Your task to perform on an android device: find which apps use the phone's location Image 0: 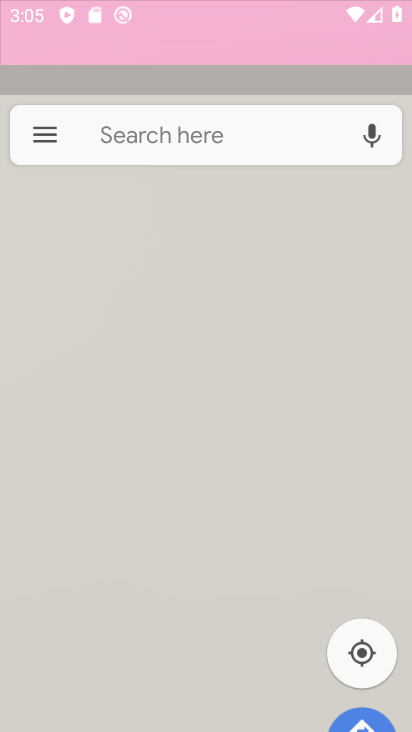
Step 0: click (257, 580)
Your task to perform on an android device: find which apps use the phone's location Image 1: 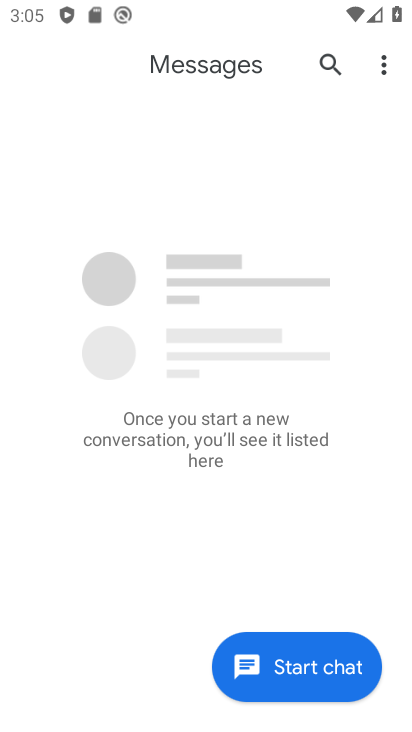
Step 1: press back button
Your task to perform on an android device: find which apps use the phone's location Image 2: 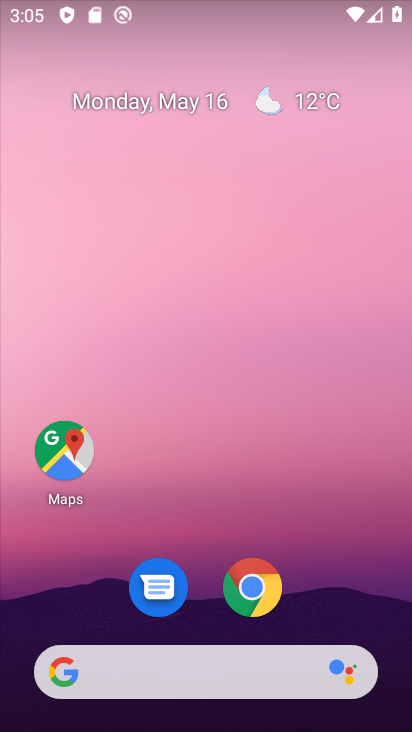
Step 2: click (257, 577)
Your task to perform on an android device: find which apps use the phone's location Image 3: 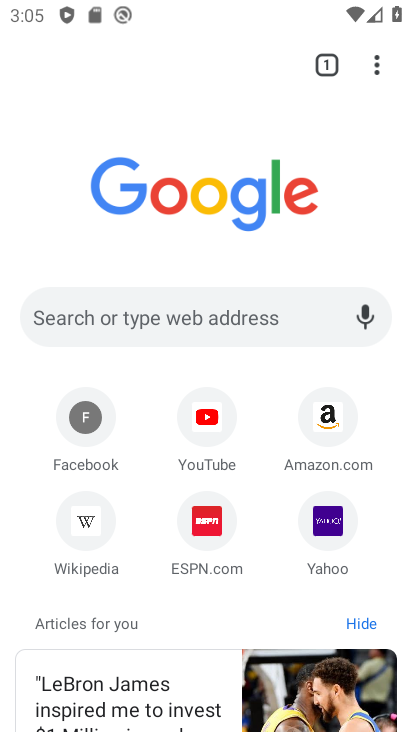
Step 3: click (371, 62)
Your task to perform on an android device: find which apps use the phone's location Image 4: 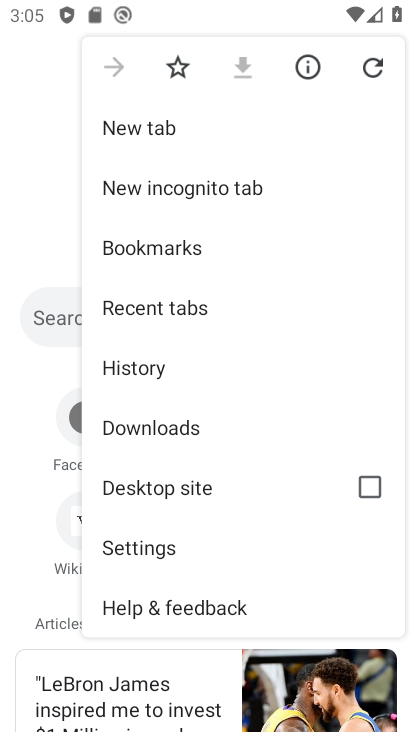
Step 4: click (116, 543)
Your task to perform on an android device: find which apps use the phone's location Image 5: 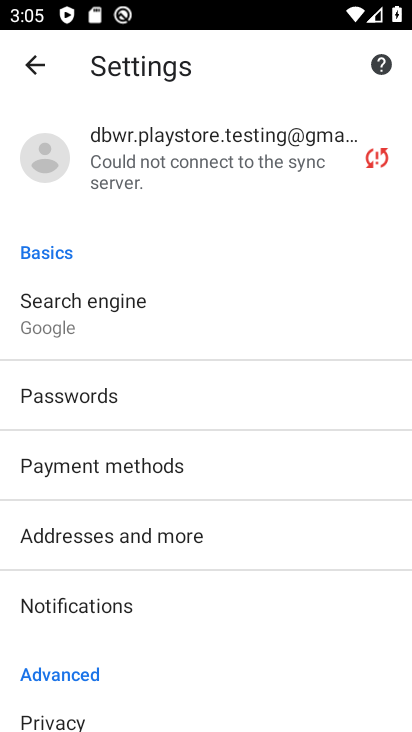
Step 5: press home button
Your task to perform on an android device: find which apps use the phone's location Image 6: 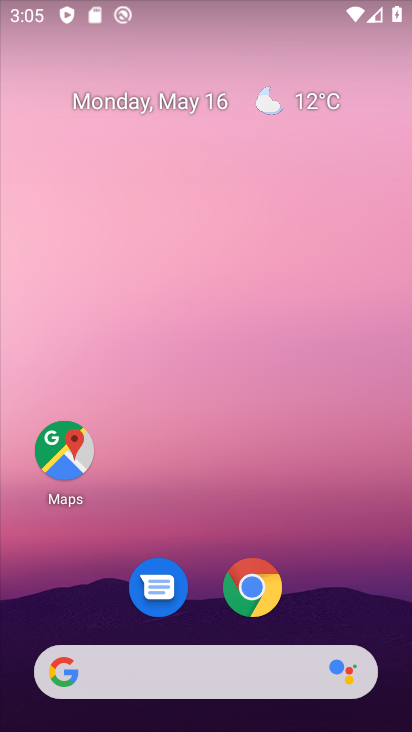
Step 6: drag from (396, 584) to (409, 190)
Your task to perform on an android device: find which apps use the phone's location Image 7: 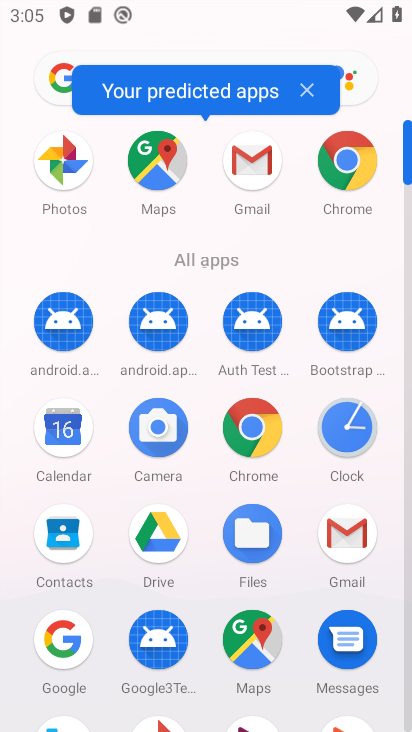
Step 7: click (405, 128)
Your task to perform on an android device: find which apps use the phone's location Image 8: 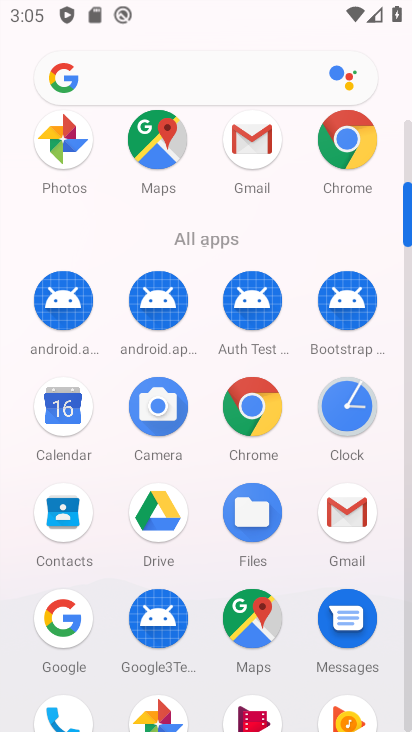
Step 8: drag from (408, 196) to (410, 138)
Your task to perform on an android device: find which apps use the phone's location Image 9: 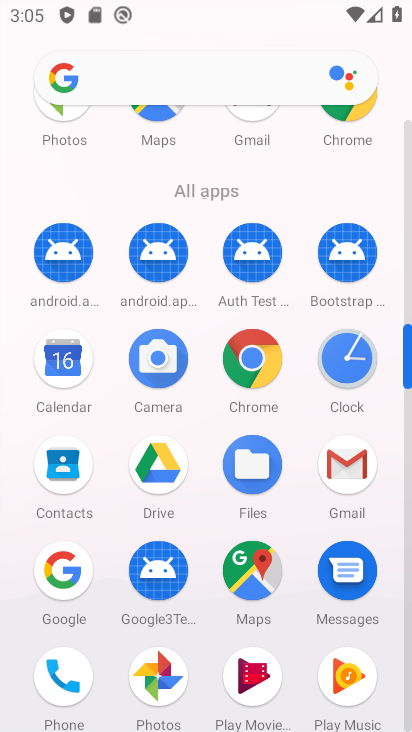
Step 9: click (410, 188)
Your task to perform on an android device: find which apps use the phone's location Image 10: 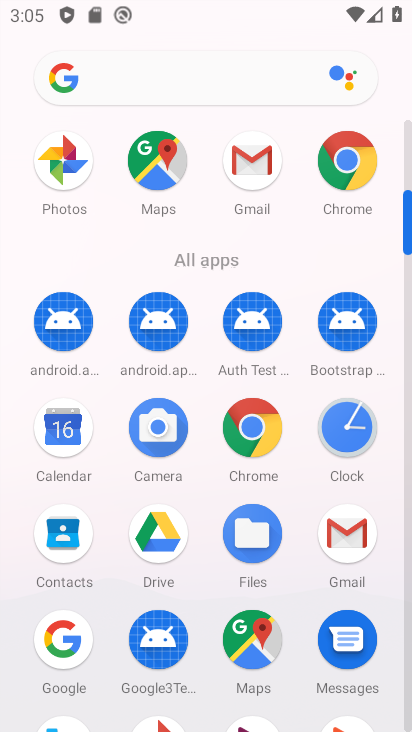
Step 10: drag from (408, 201) to (406, 149)
Your task to perform on an android device: find which apps use the phone's location Image 11: 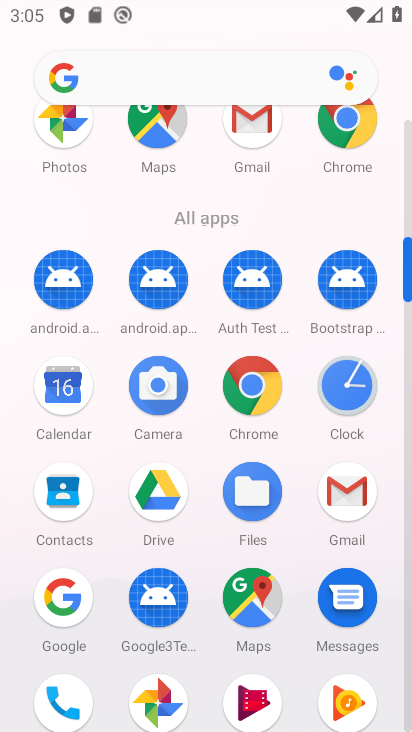
Step 11: drag from (407, 243) to (404, 168)
Your task to perform on an android device: find which apps use the phone's location Image 12: 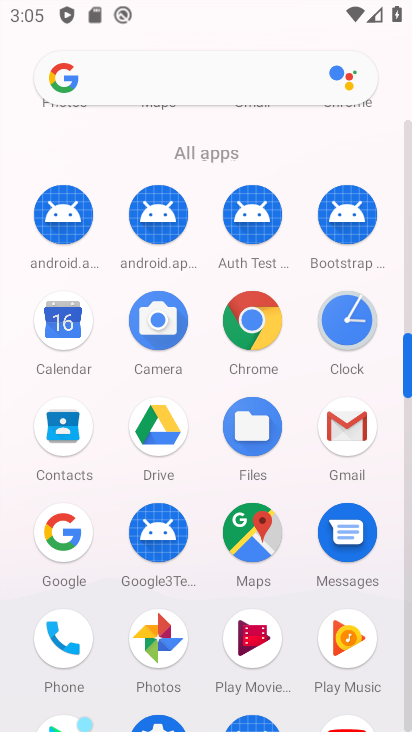
Step 12: drag from (407, 337) to (391, 178)
Your task to perform on an android device: find which apps use the phone's location Image 13: 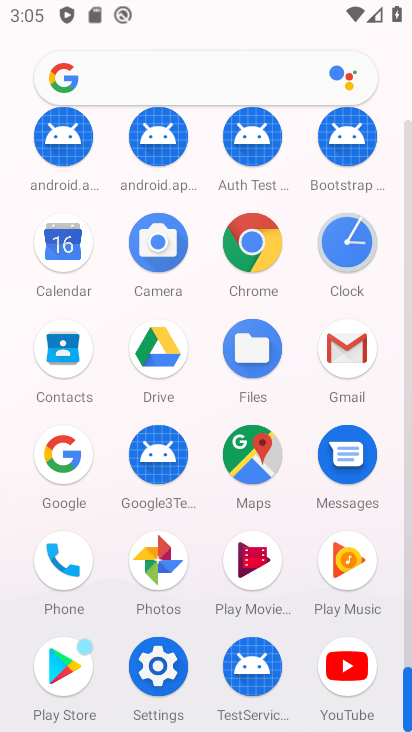
Step 13: click (160, 665)
Your task to perform on an android device: find which apps use the phone's location Image 14: 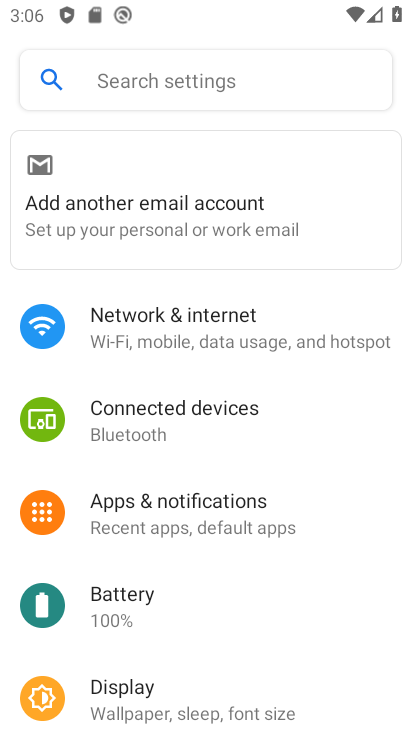
Step 14: drag from (258, 643) to (263, 432)
Your task to perform on an android device: find which apps use the phone's location Image 15: 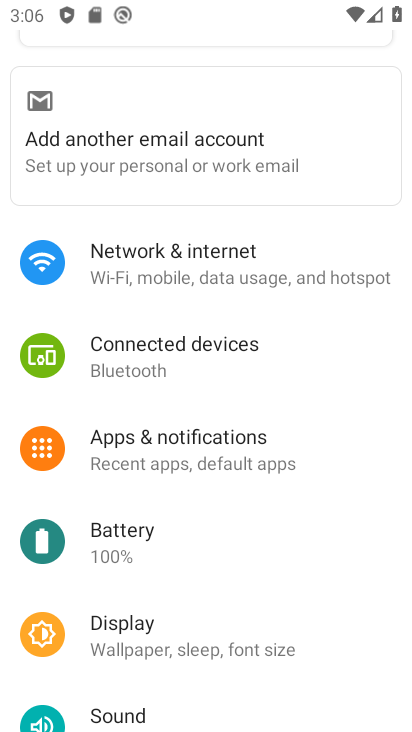
Step 15: drag from (296, 684) to (291, 502)
Your task to perform on an android device: find which apps use the phone's location Image 16: 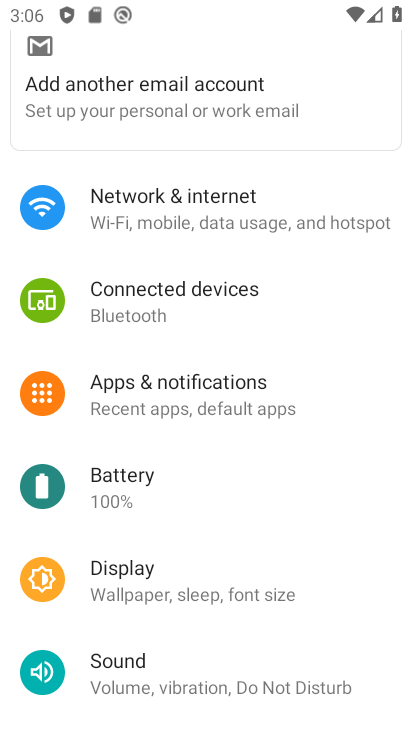
Step 16: drag from (350, 611) to (355, 404)
Your task to perform on an android device: find which apps use the phone's location Image 17: 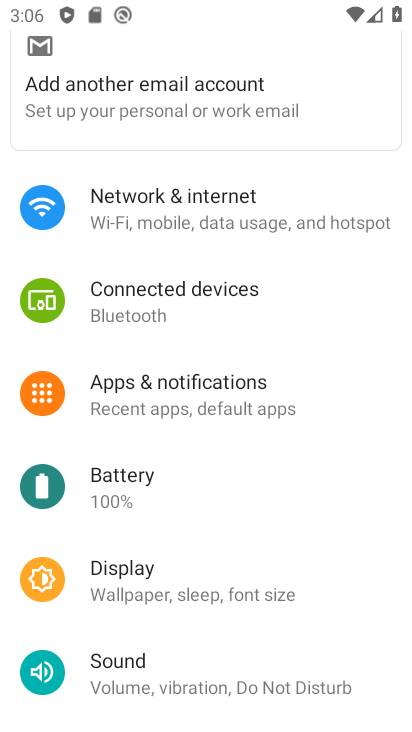
Step 17: drag from (328, 635) to (328, 449)
Your task to perform on an android device: find which apps use the phone's location Image 18: 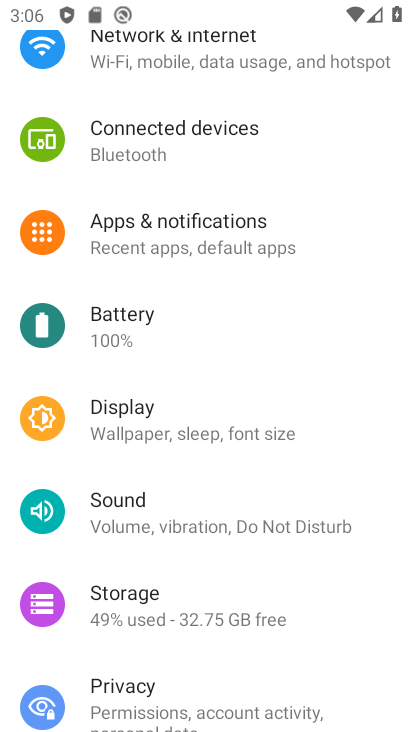
Step 18: drag from (234, 683) to (224, 362)
Your task to perform on an android device: find which apps use the phone's location Image 19: 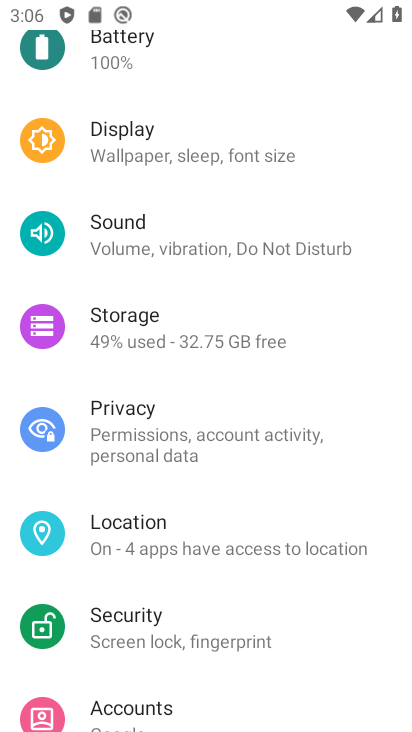
Step 19: click (125, 531)
Your task to perform on an android device: find which apps use the phone's location Image 20: 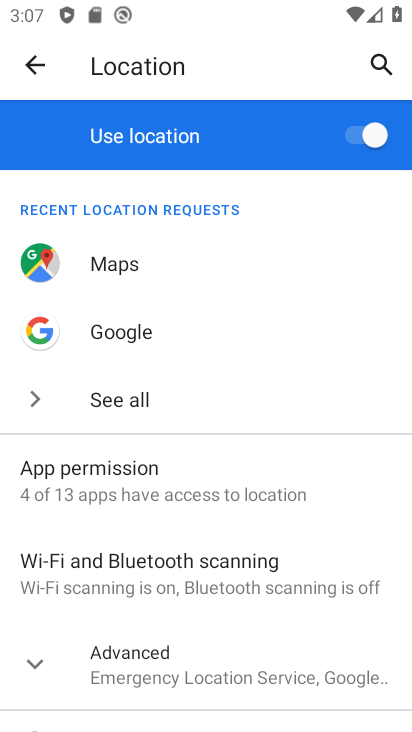
Step 20: click (29, 481)
Your task to perform on an android device: find which apps use the phone's location Image 21: 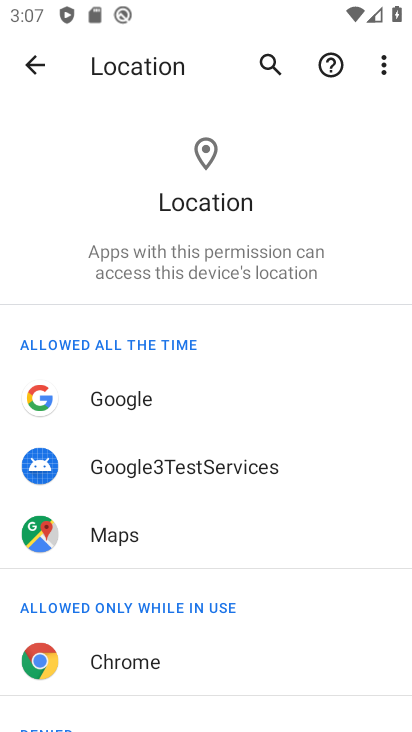
Step 21: task complete